Your task to perform on an android device: read, delete, or share a saved page in the chrome app Image 0: 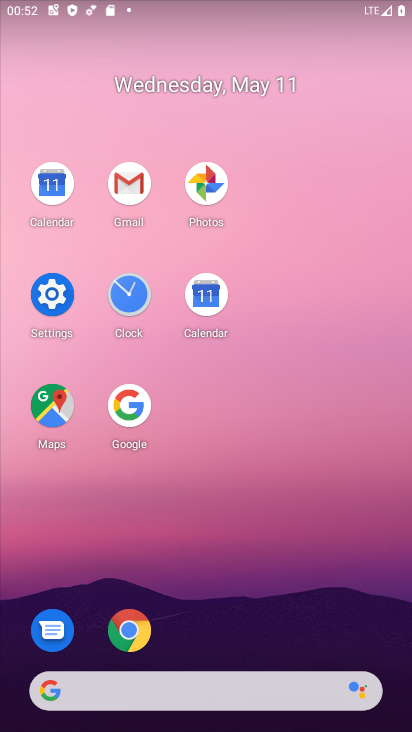
Step 0: click (119, 649)
Your task to perform on an android device: read, delete, or share a saved page in the chrome app Image 1: 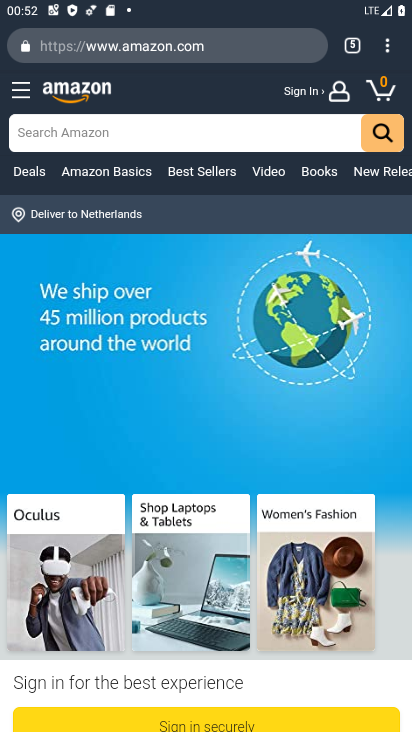
Step 1: click (394, 52)
Your task to perform on an android device: read, delete, or share a saved page in the chrome app Image 2: 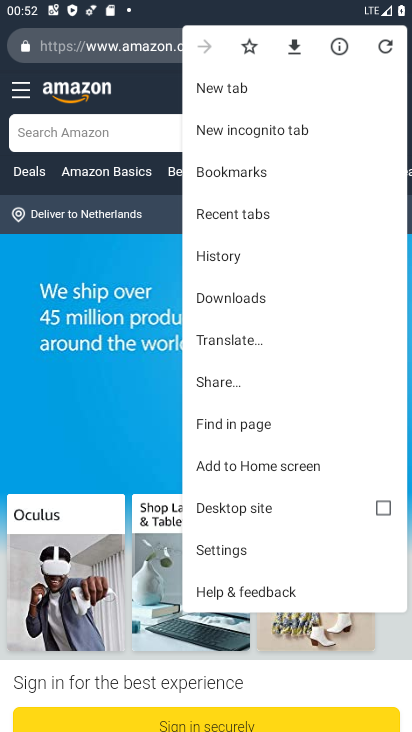
Step 2: click (269, 298)
Your task to perform on an android device: read, delete, or share a saved page in the chrome app Image 3: 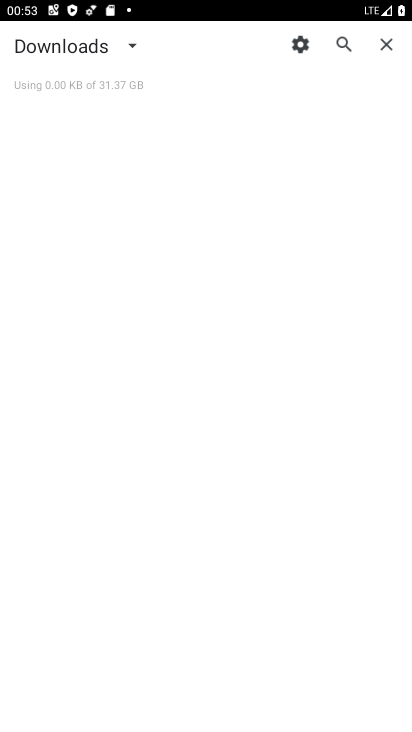
Step 3: task complete